Your task to perform on an android device: Go to calendar. Show me events next week Image 0: 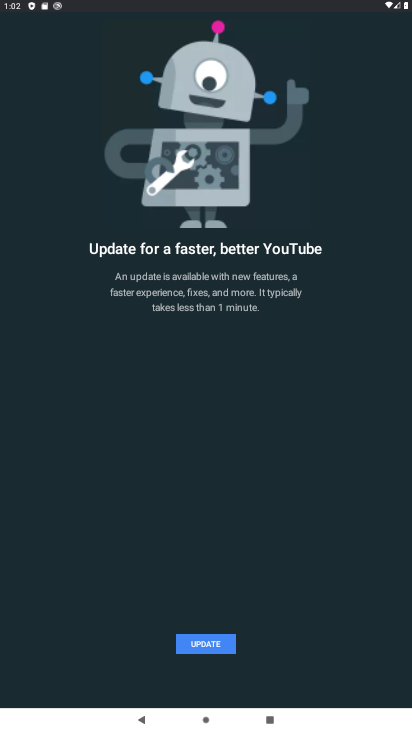
Step 0: press back button
Your task to perform on an android device: Go to calendar. Show me events next week Image 1: 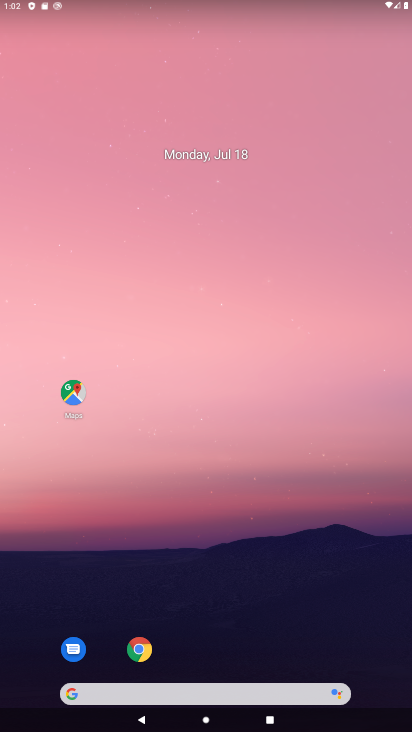
Step 1: drag from (212, 673) to (186, 110)
Your task to perform on an android device: Go to calendar. Show me events next week Image 2: 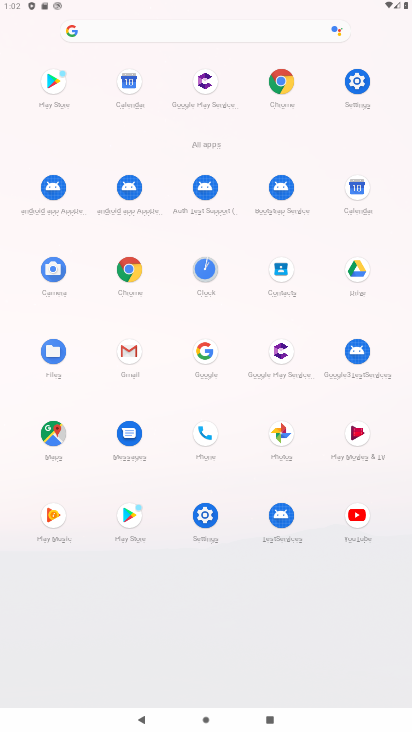
Step 2: click (355, 192)
Your task to perform on an android device: Go to calendar. Show me events next week Image 3: 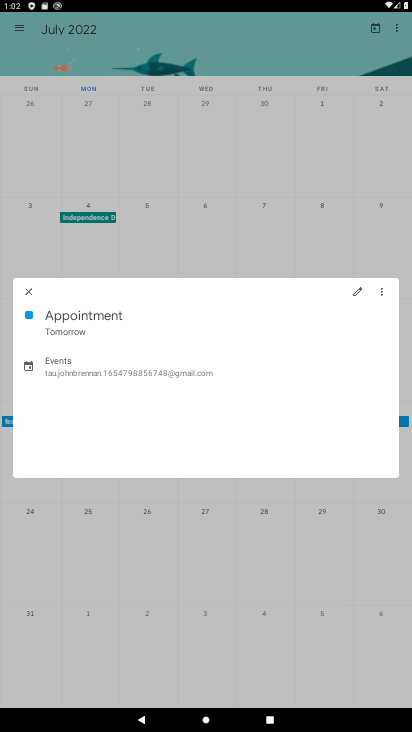
Step 3: click (265, 218)
Your task to perform on an android device: Go to calendar. Show me events next week Image 4: 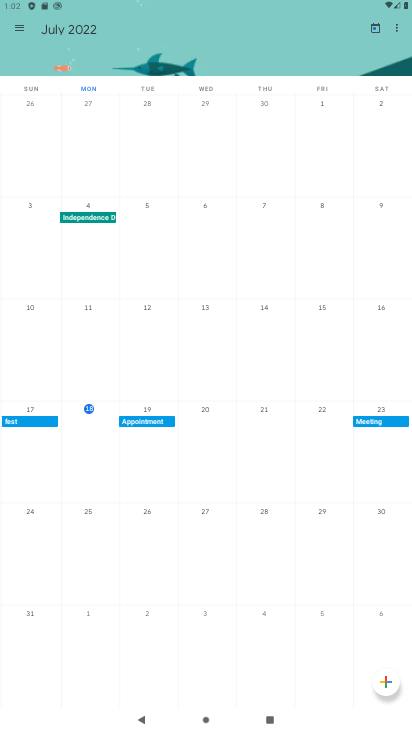
Step 4: click (36, 521)
Your task to perform on an android device: Go to calendar. Show me events next week Image 5: 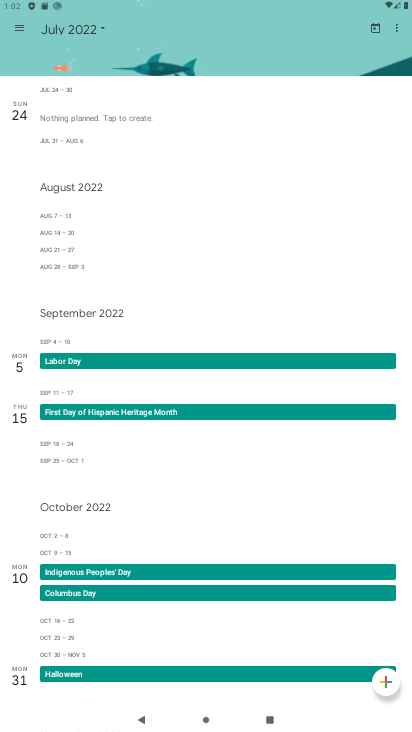
Step 5: click (17, 32)
Your task to perform on an android device: Go to calendar. Show me events next week Image 6: 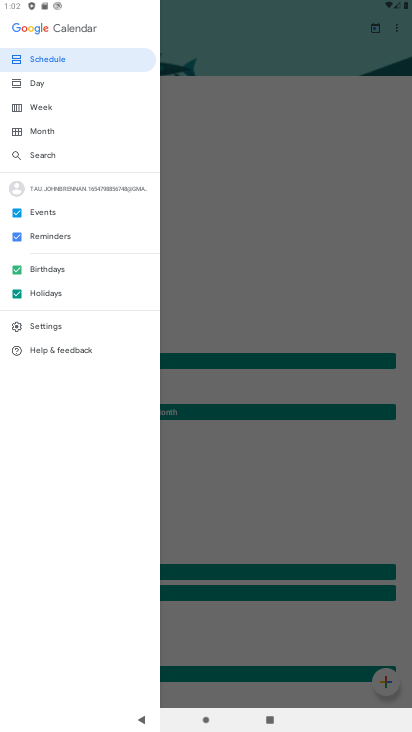
Step 6: click (36, 98)
Your task to perform on an android device: Go to calendar. Show me events next week Image 7: 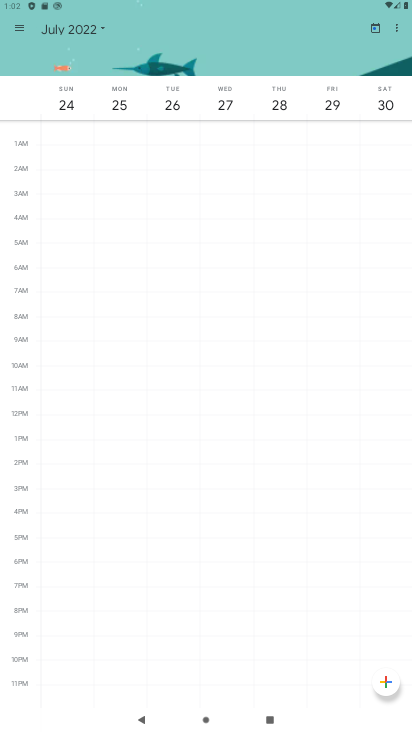
Step 7: task complete